Your task to perform on an android device: empty trash in google photos Image 0: 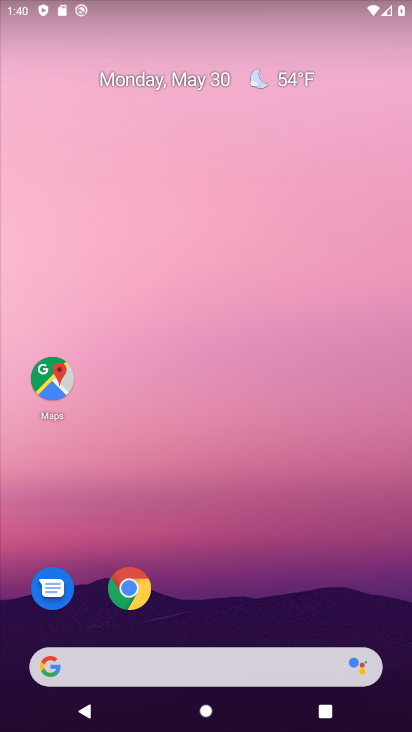
Step 0: drag from (222, 608) to (240, 101)
Your task to perform on an android device: empty trash in google photos Image 1: 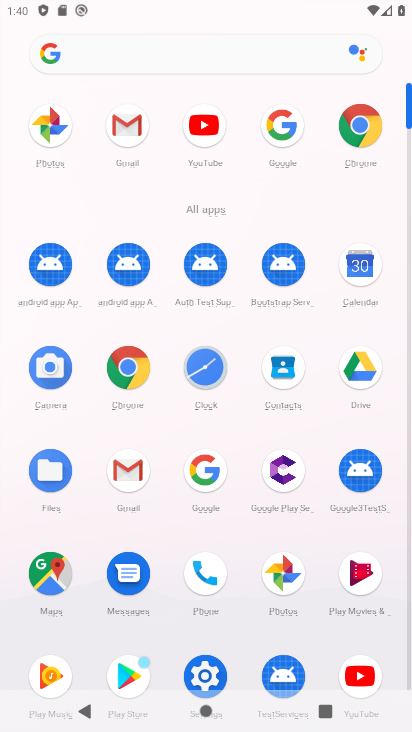
Step 1: click (291, 569)
Your task to perform on an android device: empty trash in google photos Image 2: 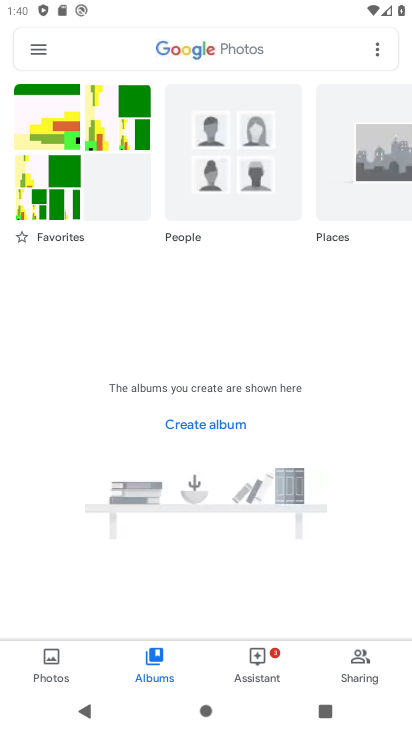
Step 2: click (40, 46)
Your task to perform on an android device: empty trash in google photos Image 3: 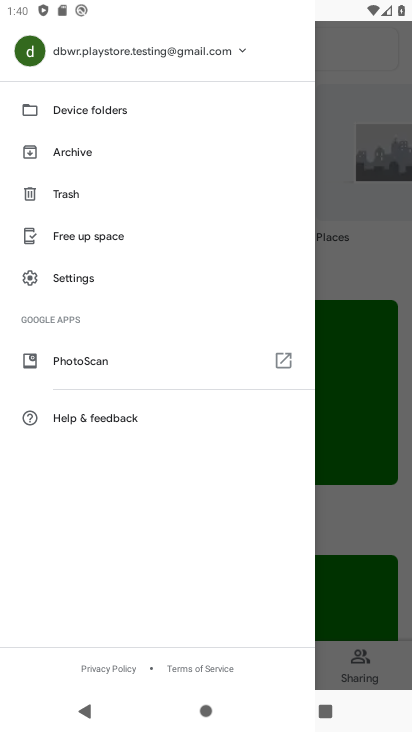
Step 3: click (68, 194)
Your task to perform on an android device: empty trash in google photos Image 4: 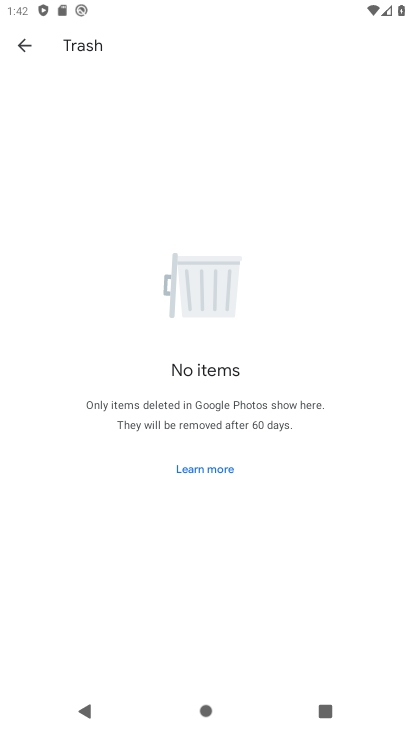
Step 4: task complete